Your task to perform on an android device: turn on the 24-hour format for clock Image 0: 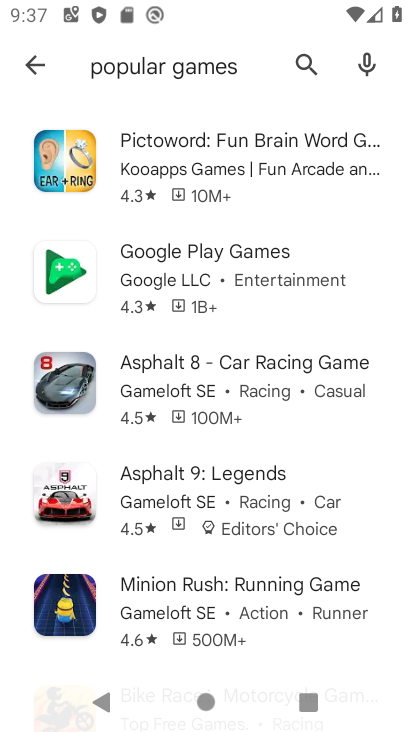
Step 0: click (194, 697)
Your task to perform on an android device: turn on the 24-hour format for clock Image 1: 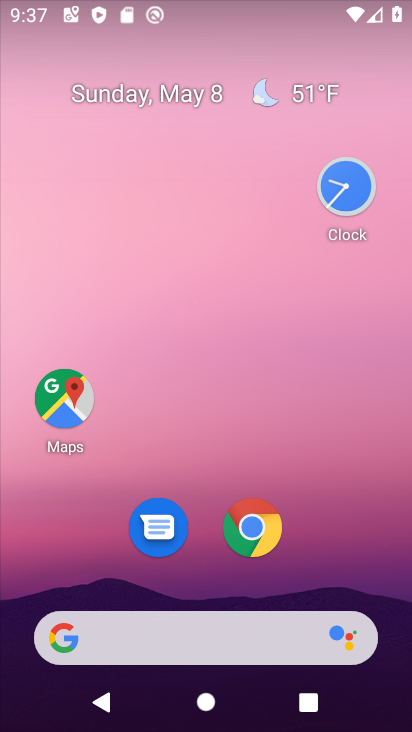
Step 1: drag from (271, 588) to (302, 382)
Your task to perform on an android device: turn on the 24-hour format for clock Image 2: 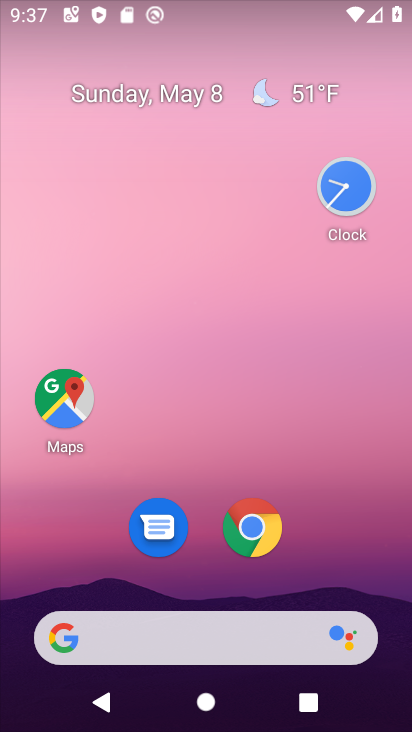
Step 2: drag from (313, 598) to (328, 170)
Your task to perform on an android device: turn on the 24-hour format for clock Image 3: 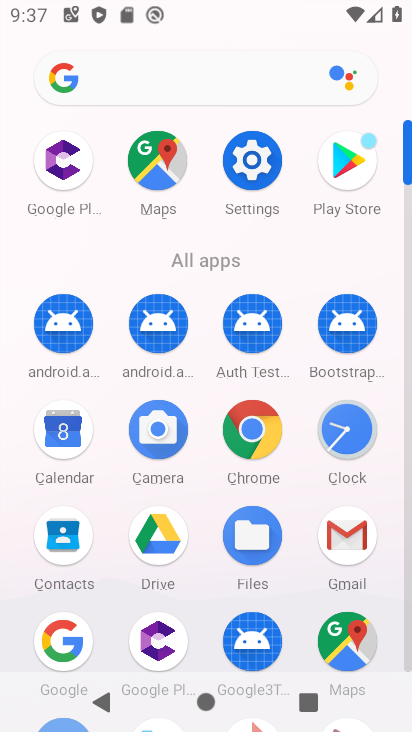
Step 3: click (345, 441)
Your task to perform on an android device: turn on the 24-hour format for clock Image 4: 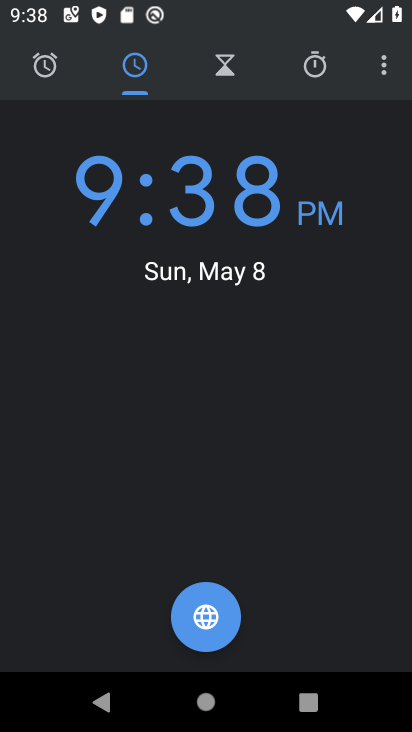
Step 4: click (381, 74)
Your task to perform on an android device: turn on the 24-hour format for clock Image 5: 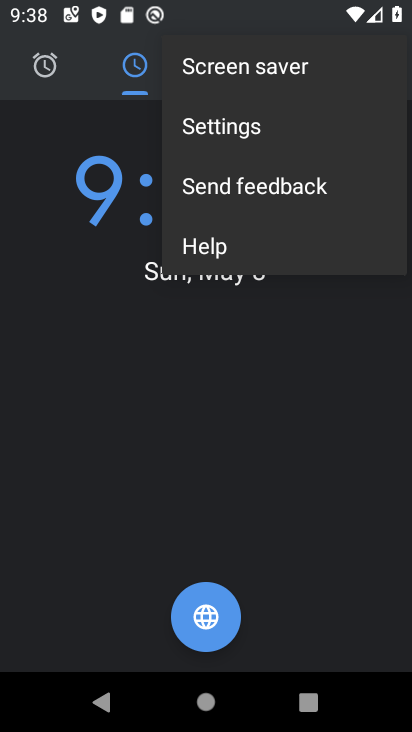
Step 5: click (324, 122)
Your task to perform on an android device: turn on the 24-hour format for clock Image 6: 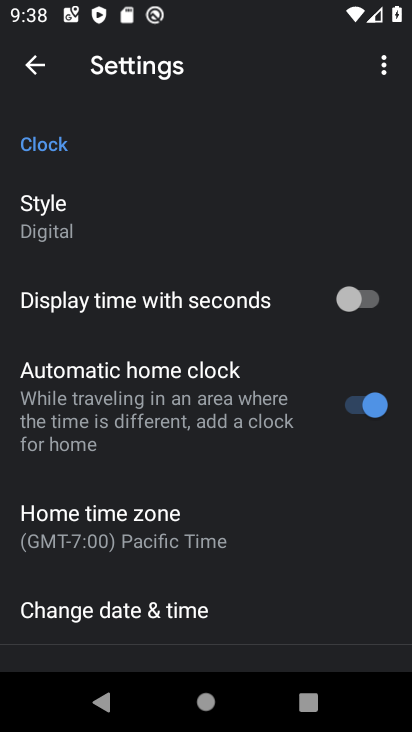
Step 6: click (53, 608)
Your task to perform on an android device: turn on the 24-hour format for clock Image 7: 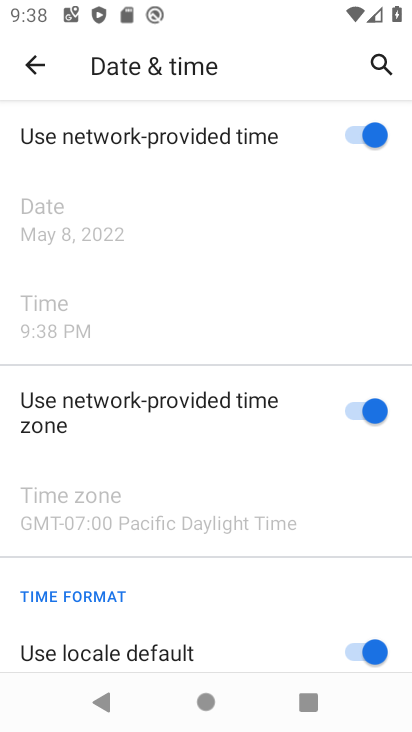
Step 7: drag from (116, 600) to (129, 407)
Your task to perform on an android device: turn on the 24-hour format for clock Image 8: 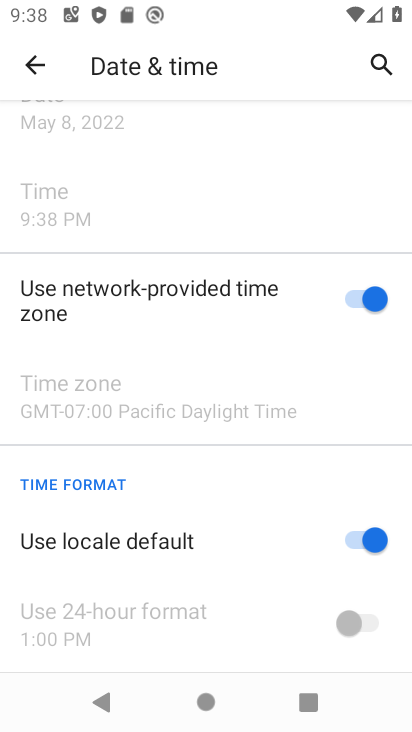
Step 8: click (354, 625)
Your task to perform on an android device: turn on the 24-hour format for clock Image 9: 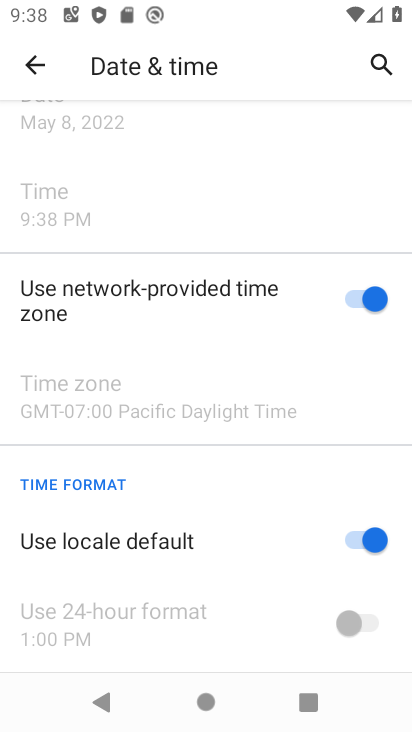
Step 9: click (353, 532)
Your task to perform on an android device: turn on the 24-hour format for clock Image 10: 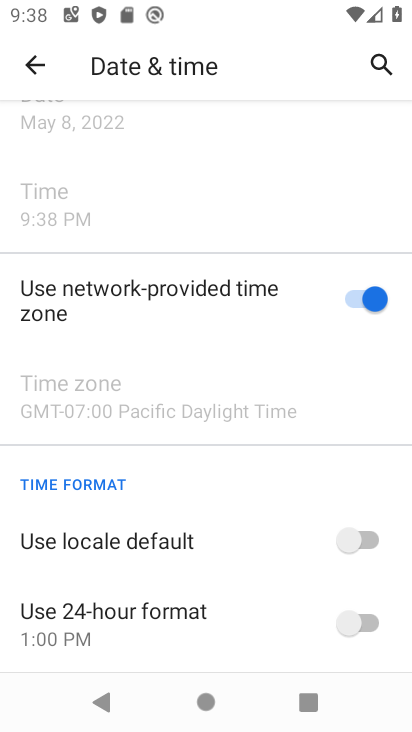
Step 10: click (350, 620)
Your task to perform on an android device: turn on the 24-hour format for clock Image 11: 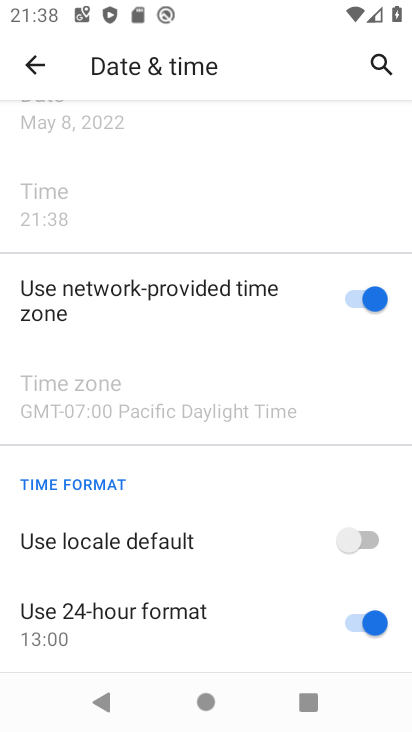
Step 11: task complete